Your task to perform on an android device: clear history in the chrome app Image 0: 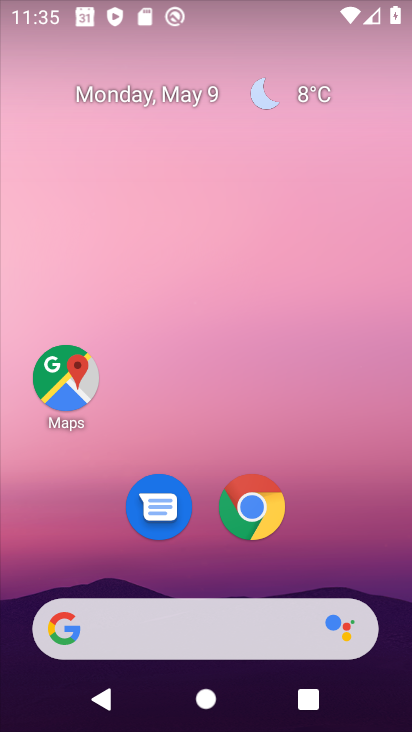
Step 0: click (260, 503)
Your task to perform on an android device: clear history in the chrome app Image 1: 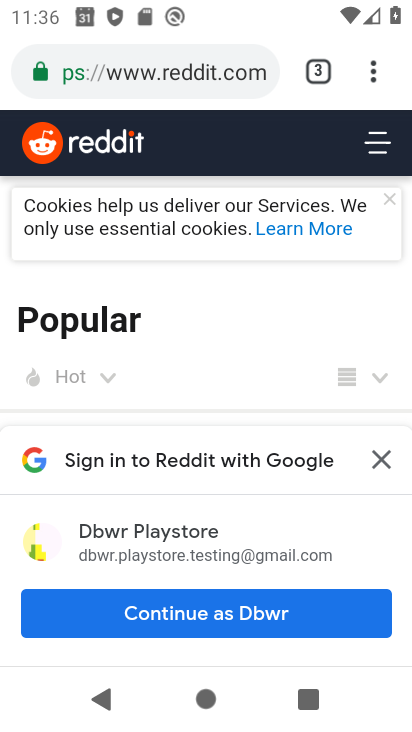
Step 1: click (313, 610)
Your task to perform on an android device: clear history in the chrome app Image 2: 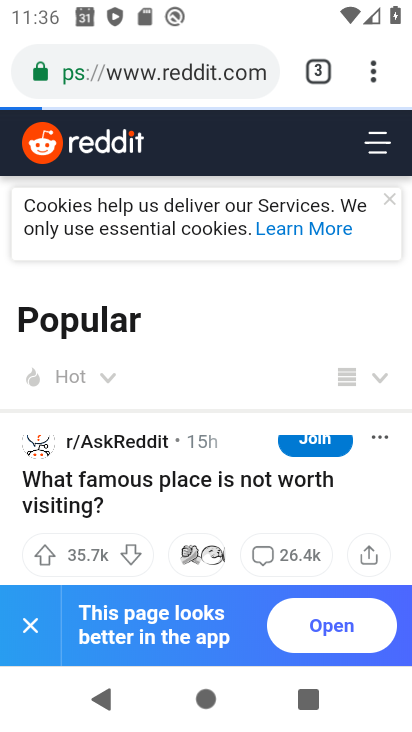
Step 2: click (380, 79)
Your task to perform on an android device: clear history in the chrome app Image 3: 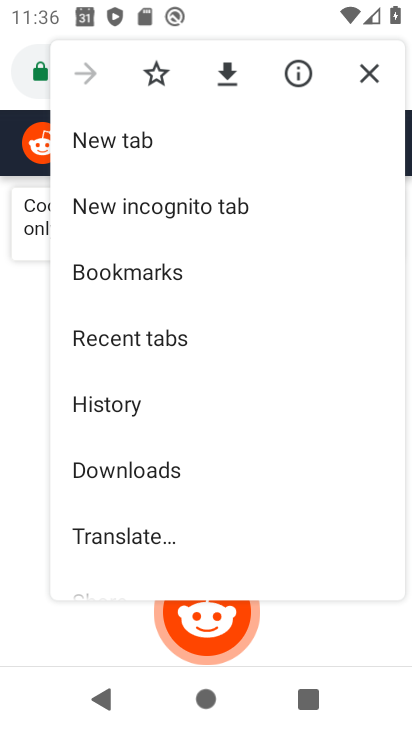
Step 3: click (118, 390)
Your task to perform on an android device: clear history in the chrome app Image 4: 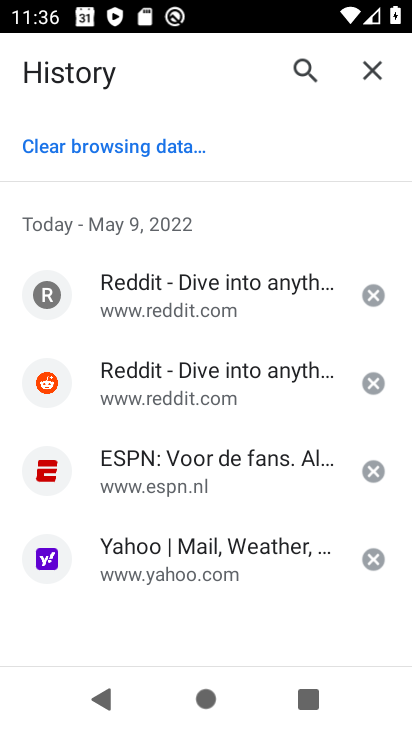
Step 4: click (172, 149)
Your task to perform on an android device: clear history in the chrome app Image 5: 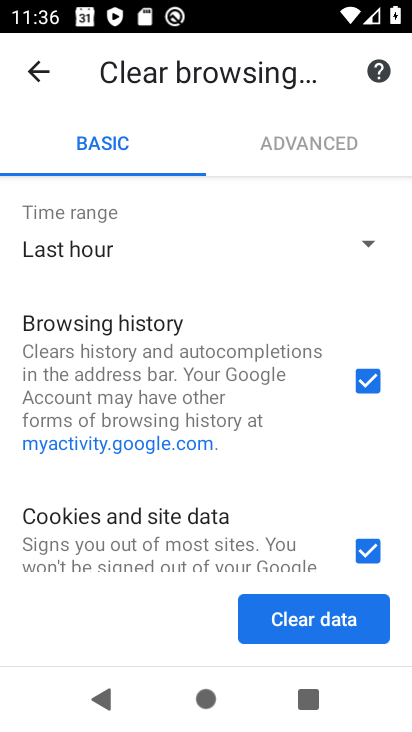
Step 5: click (363, 241)
Your task to perform on an android device: clear history in the chrome app Image 6: 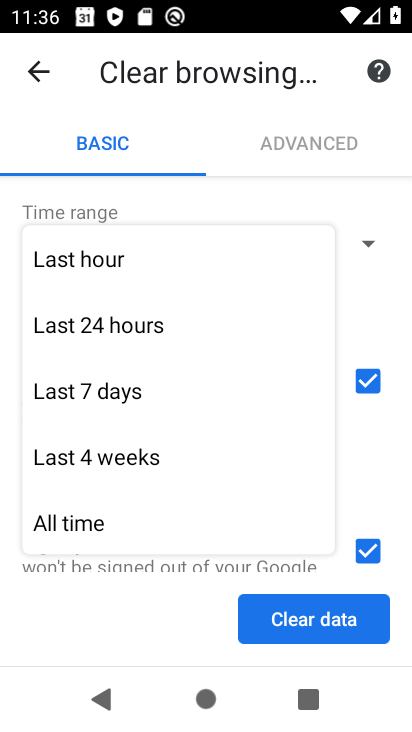
Step 6: click (105, 520)
Your task to perform on an android device: clear history in the chrome app Image 7: 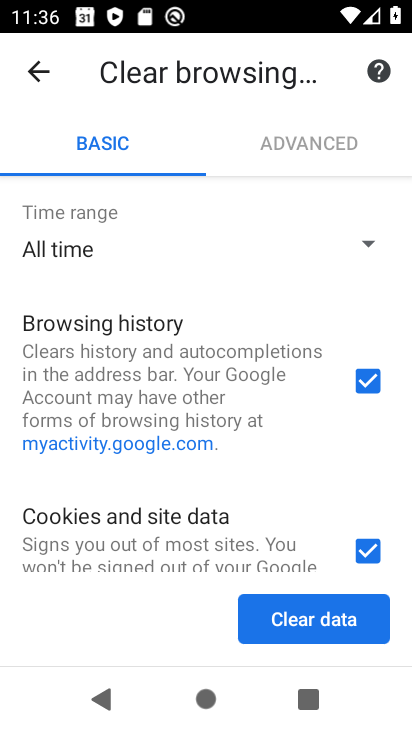
Step 7: click (299, 609)
Your task to perform on an android device: clear history in the chrome app Image 8: 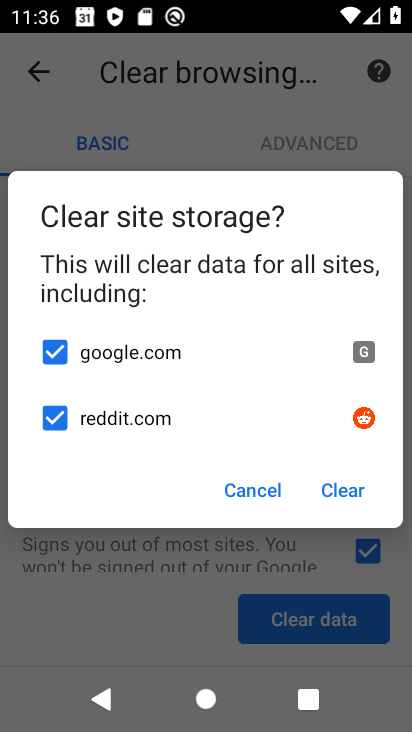
Step 8: click (350, 482)
Your task to perform on an android device: clear history in the chrome app Image 9: 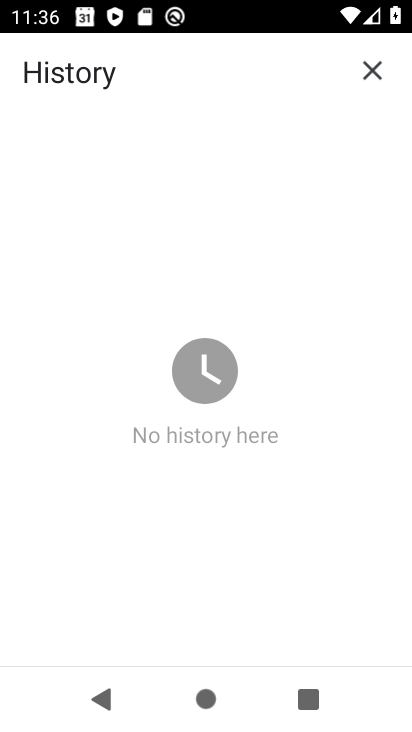
Step 9: task complete